Your task to perform on an android device: turn off data saver in the chrome app Image 0: 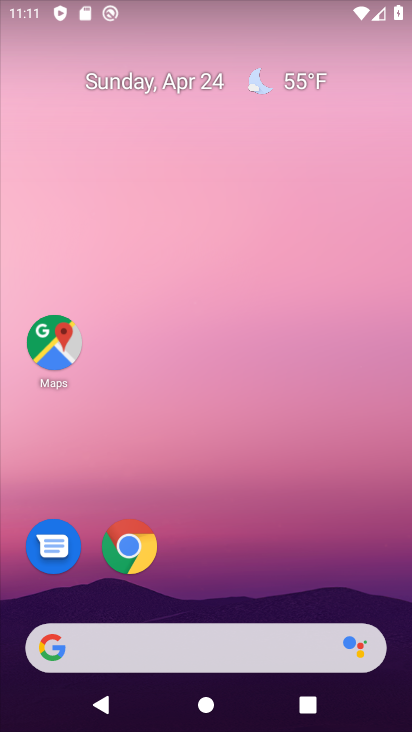
Step 0: click (132, 546)
Your task to perform on an android device: turn off data saver in the chrome app Image 1: 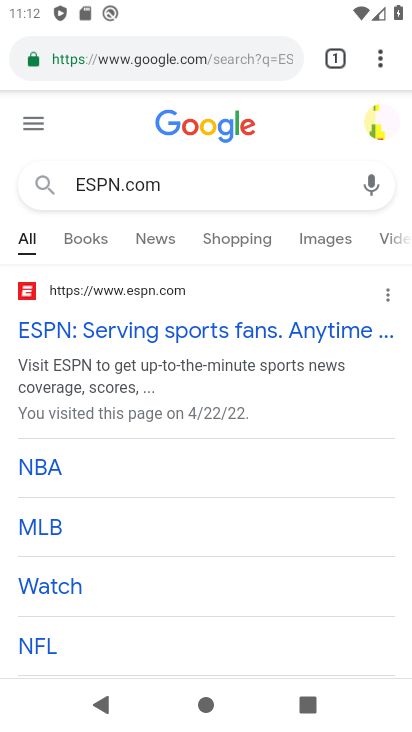
Step 1: click (380, 59)
Your task to perform on an android device: turn off data saver in the chrome app Image 2: 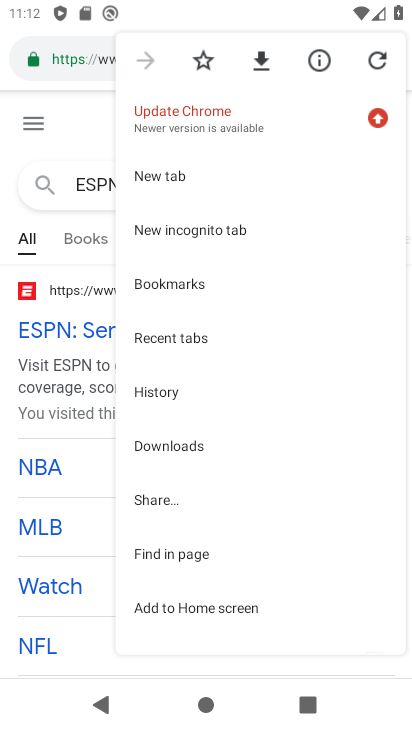
Step 2: drag from (231, 502) to (233, 400)
Your task to perform on an android device: turn off data saver in the chrome app Image 3: 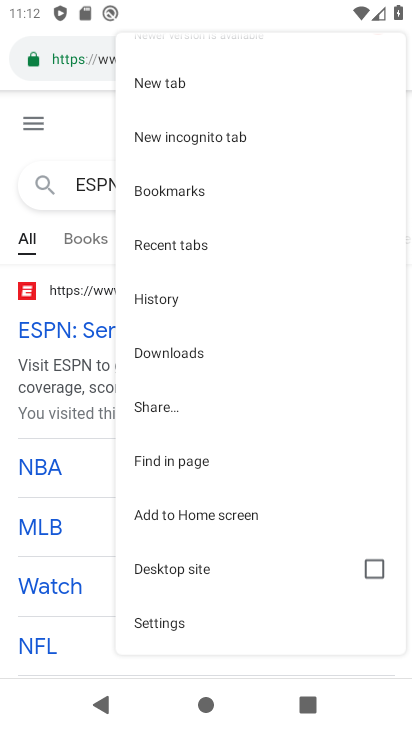
Step 3: drag from (228, 565) to (231, 491)
Your task to perform on an android device: turn off data saver in the chrome app Image 4: 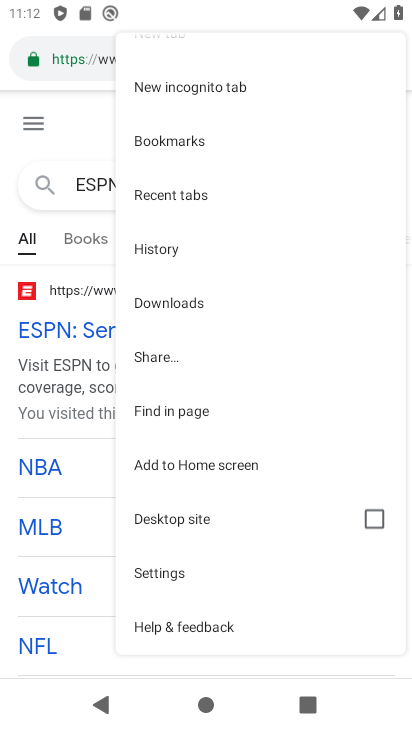
Step 4: click (168, 571)
Your task to perform on an android device: turn off data saver in the chrome app Image 5: 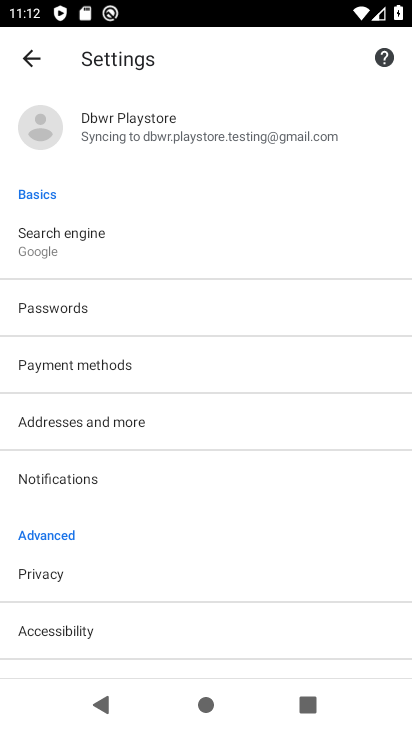
Step 5: task complete